Your task to perform on an android device: change the upload size in google photos Image 0: 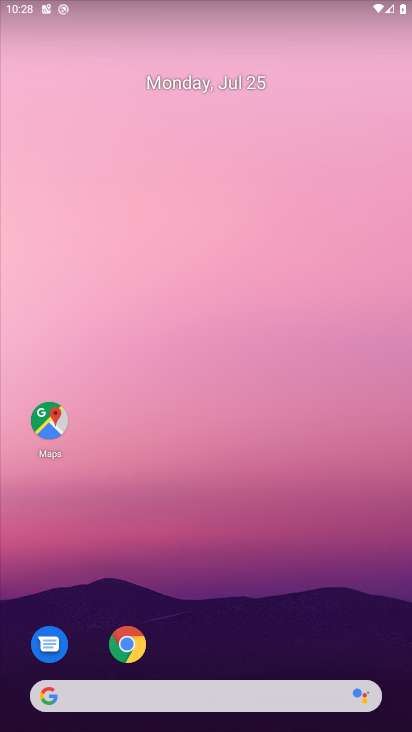
Step 0: press home button
Your task to perform on an android device: change the upload size in google photos Image 1: 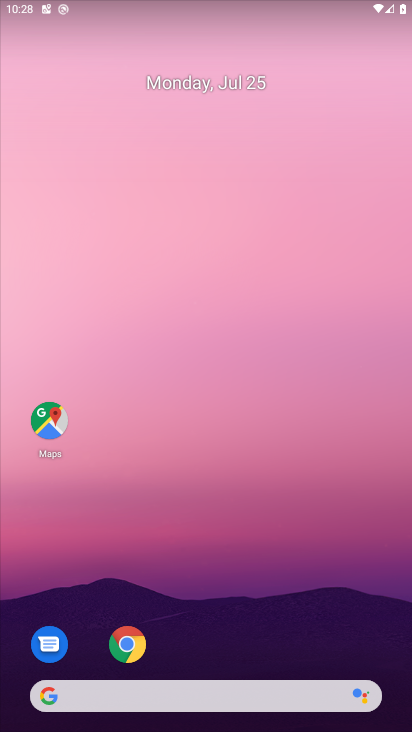
Step 1: drag from (343, 640) to (301, 23)
Your task to perform on an android device: change the upload size in google photos Image 2: 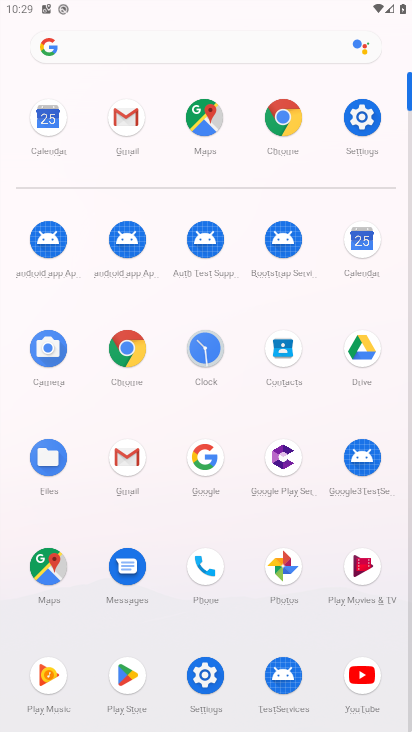
Step 2: click (287, 563)
Your task to perform on an android device: change the upload size in google photos Image 3: 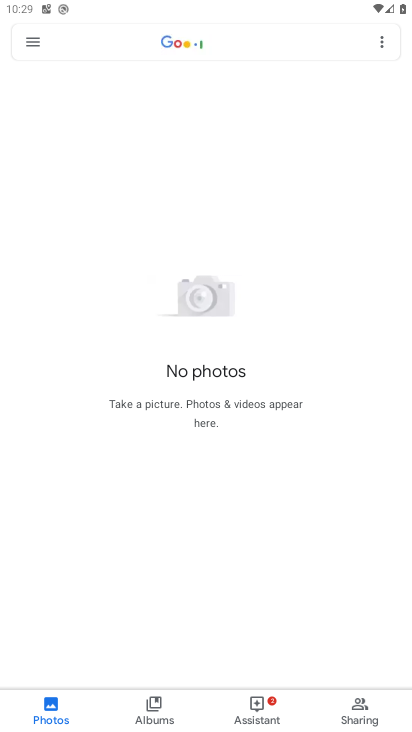
Step 3: click (390, 45)
Your task to perform on an android device: change the upload size in google photos Image 4: 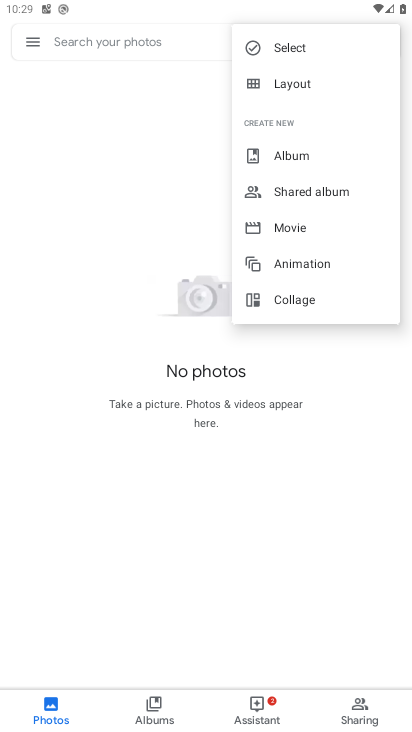
Step 4: click (182, 138)
Your task to perform on an android device: change the upload size in google photos Image 5: 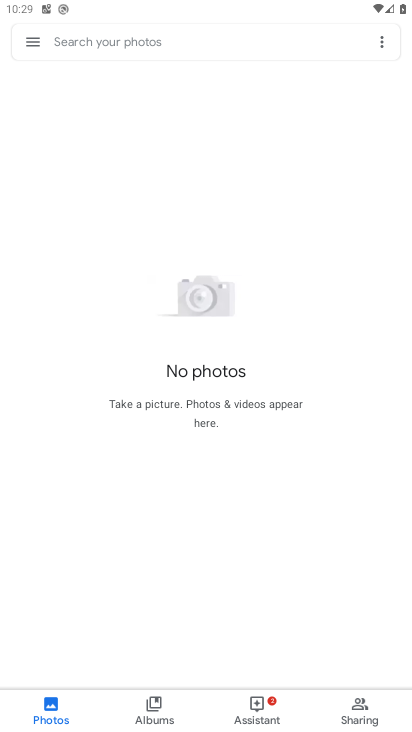
Step 5: click (29, 44)
Your task to perform on an android device: change the upload size in google photos Image 6: 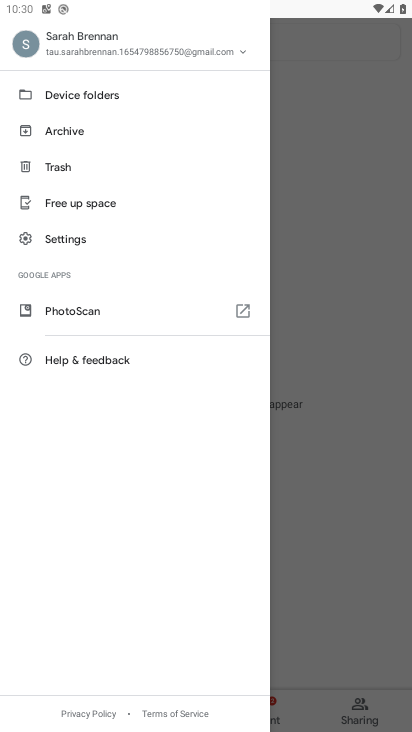
Step 6: click (97, 231)
Your task to perform on an android device: change the upload size in google photos Image 7: 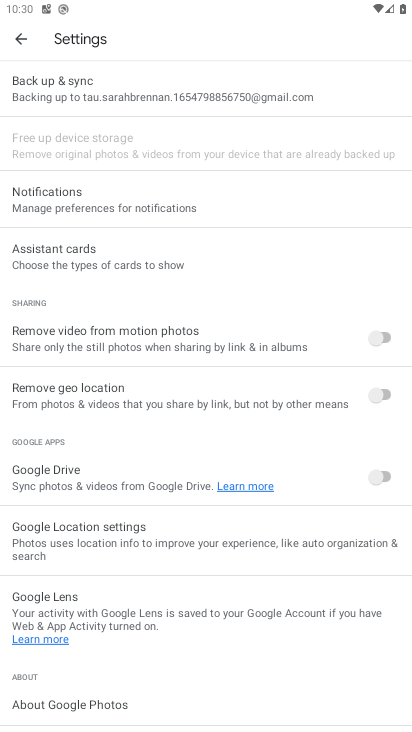
Step 7: click (104, 91)
Your task to perform on an android device: change the upload size in google photos Image 8: 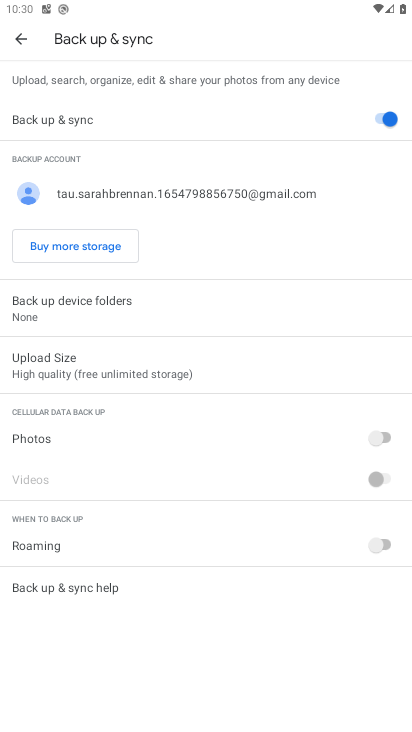
Step 8: click (48, 359)
Your task to perform on an android device: change the upload size in google photos Image 9: 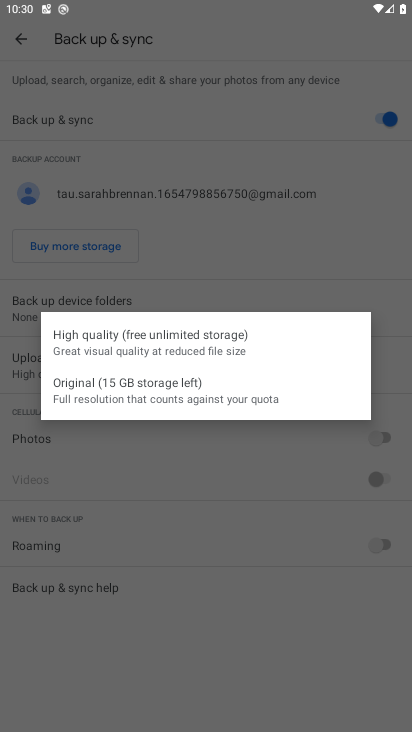
Step 9: click (155, 396)
Your task to perform on an android device: change the upload size in google photos Image 10: 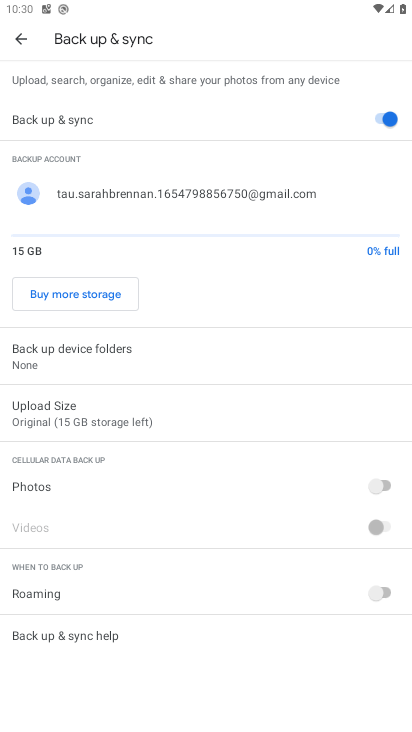
Step 10: task complete